Your task to perform on an android device: all mails in gmail Image 0: 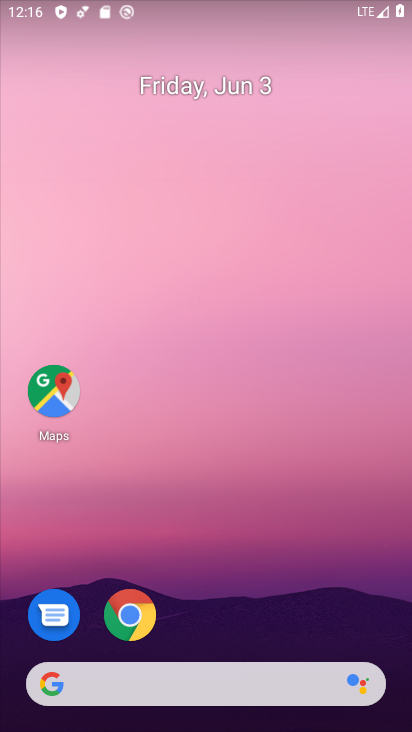
Step 0: drag from (272, 590) to (68, 15)
Your task to perform on an android device: all mails in gmail Image 1: 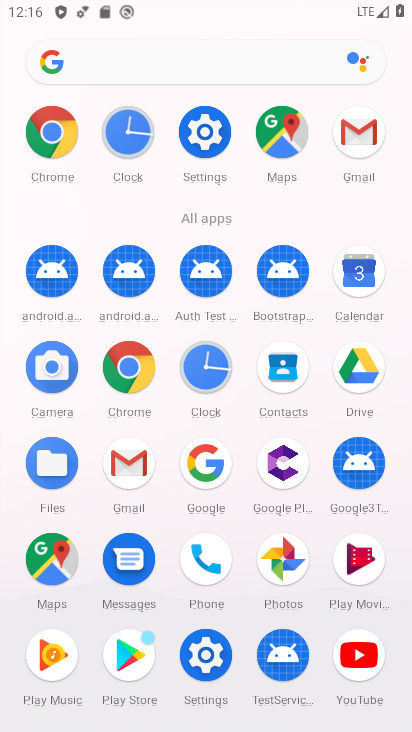
Step 1: click (133, 466)
Your task to perform on an android device: all mails in gmail Image 2: 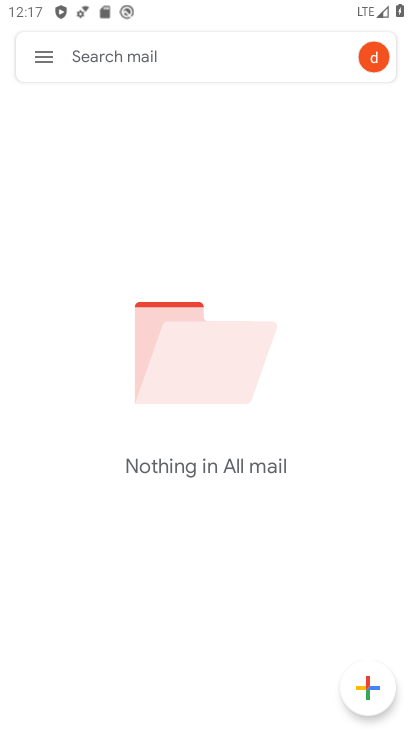
Step 2: task complete